Your task to perform on an android device: Check out the new nike air max 2020. Image 0: 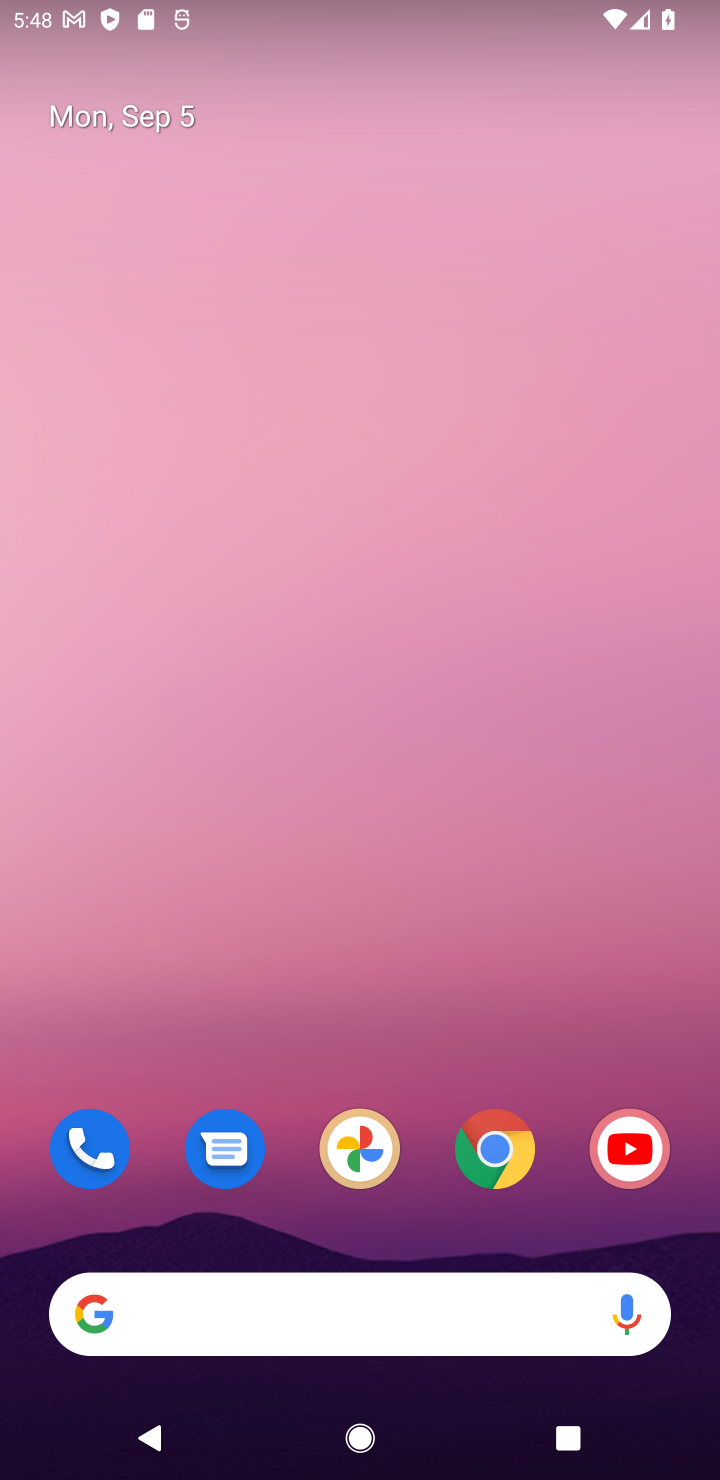
Step 0: click (484, 1153)
Your task to perform on an android device: Check out the new nike air max 2020. Image 1: 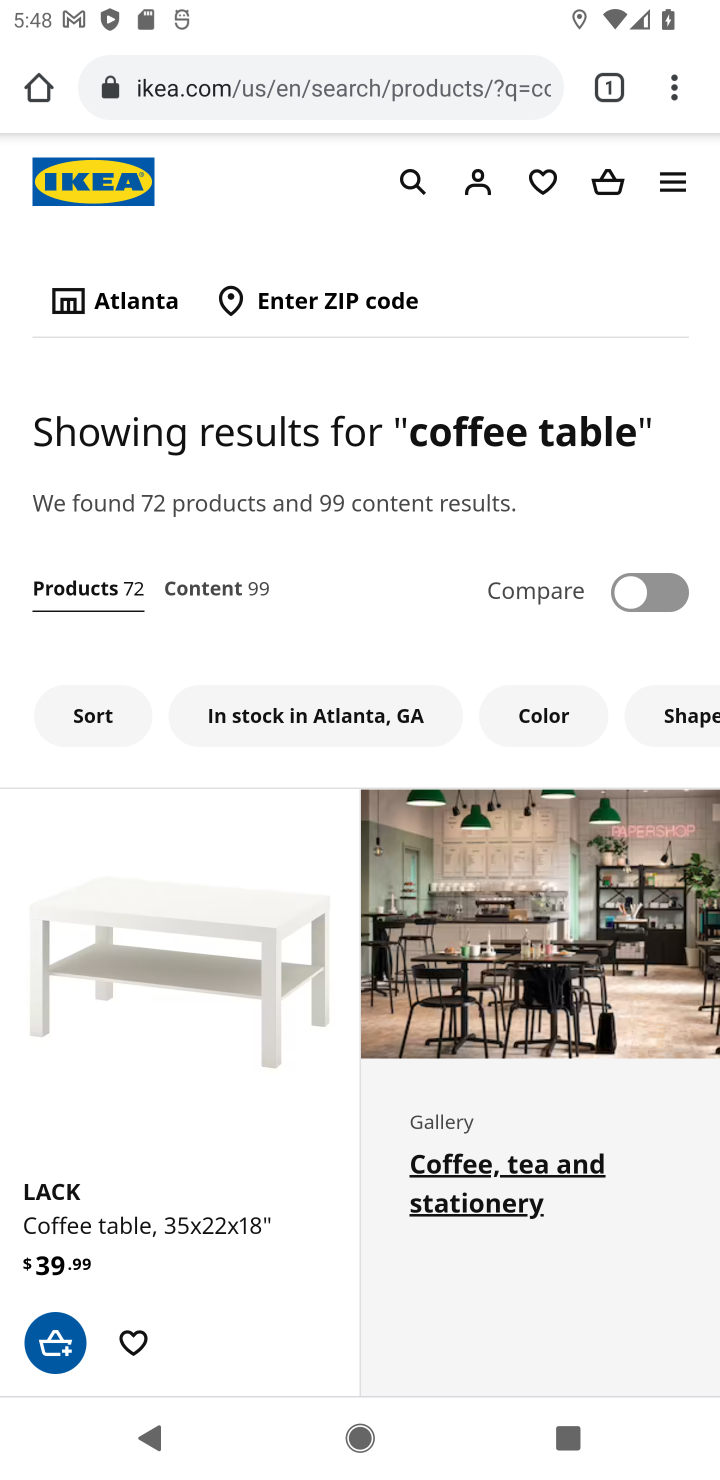
Step 1: click (294, 61)
Your task to perform on an android device: Check out the new nike air max 2020. Image 2: 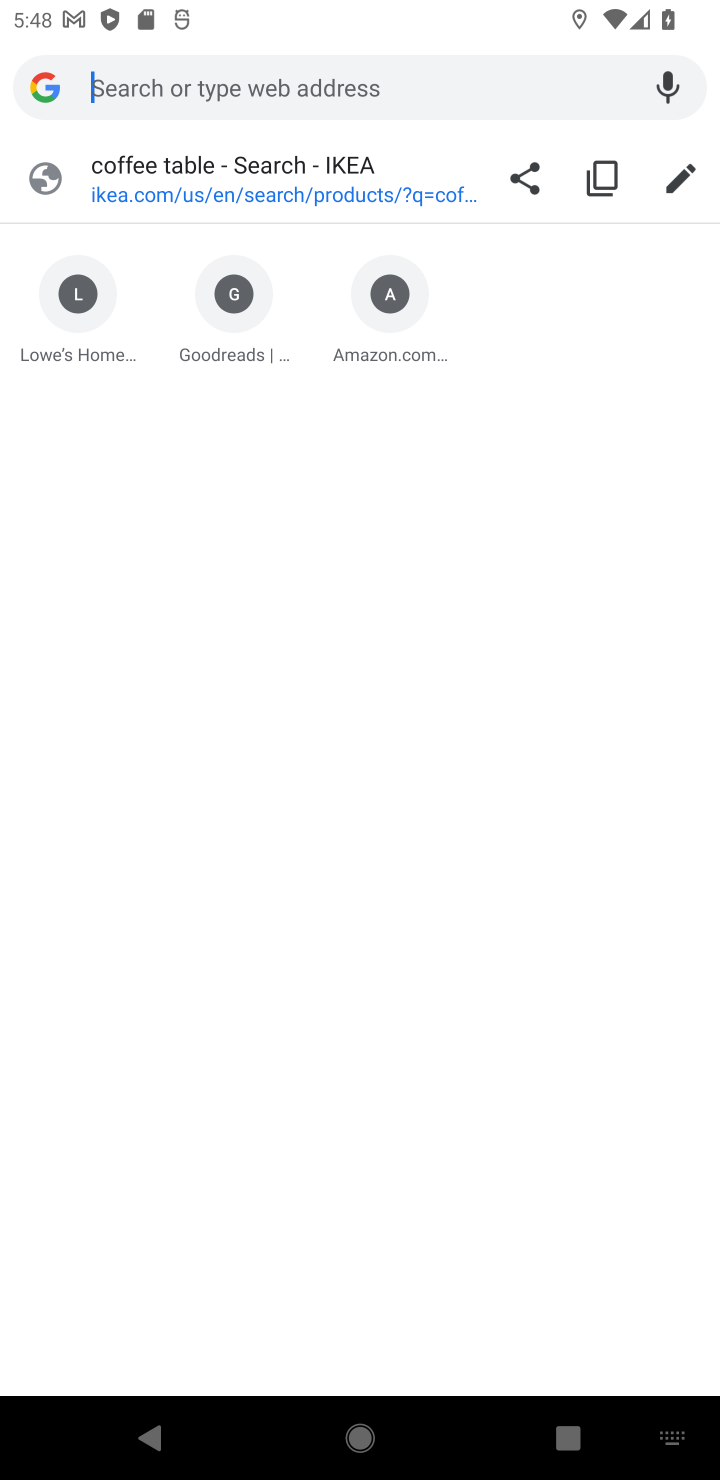
Step 2: type "nike air max 2020"
Your task to perform on an android device: Check out the new nike air max 2020. Image 3: 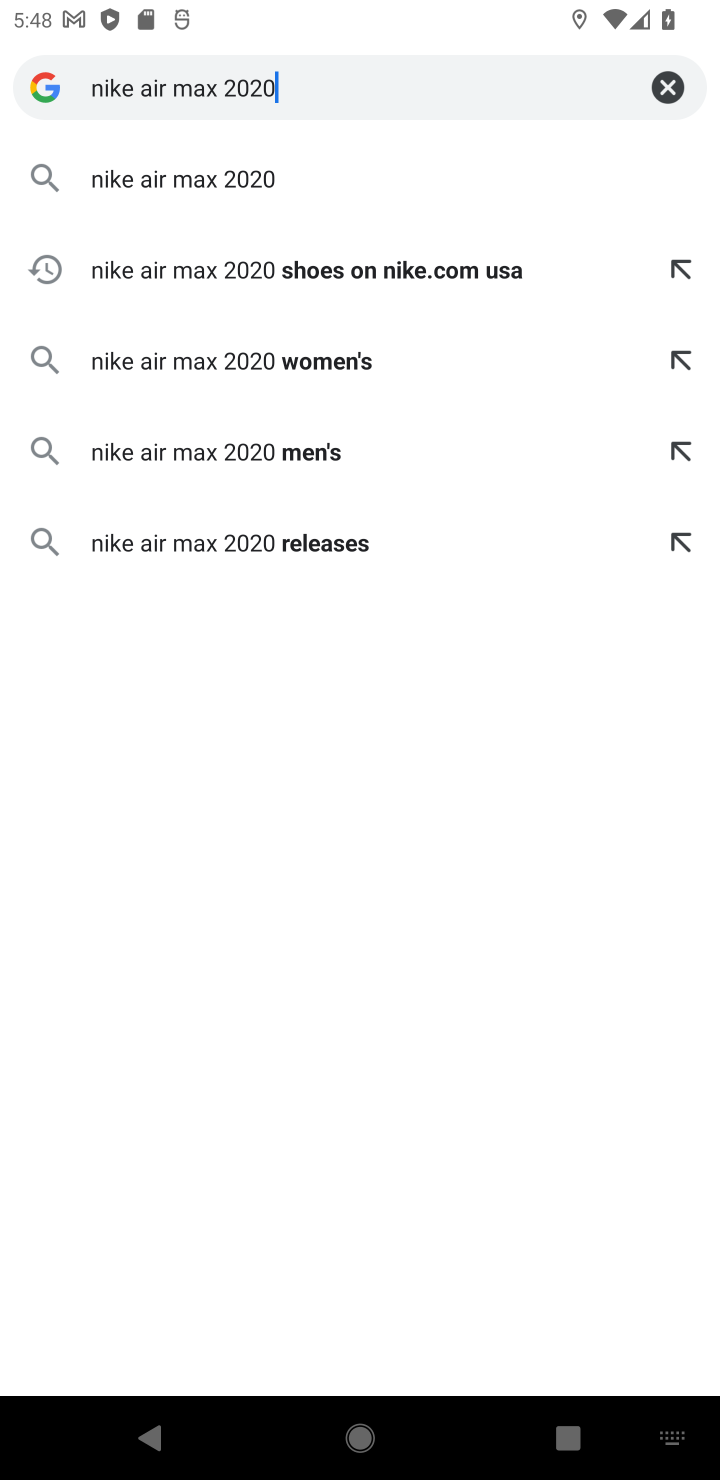
Step 3: click (158, 178)
Your task to perform on an android device: Check out the new nike air max 2020. Image 4: 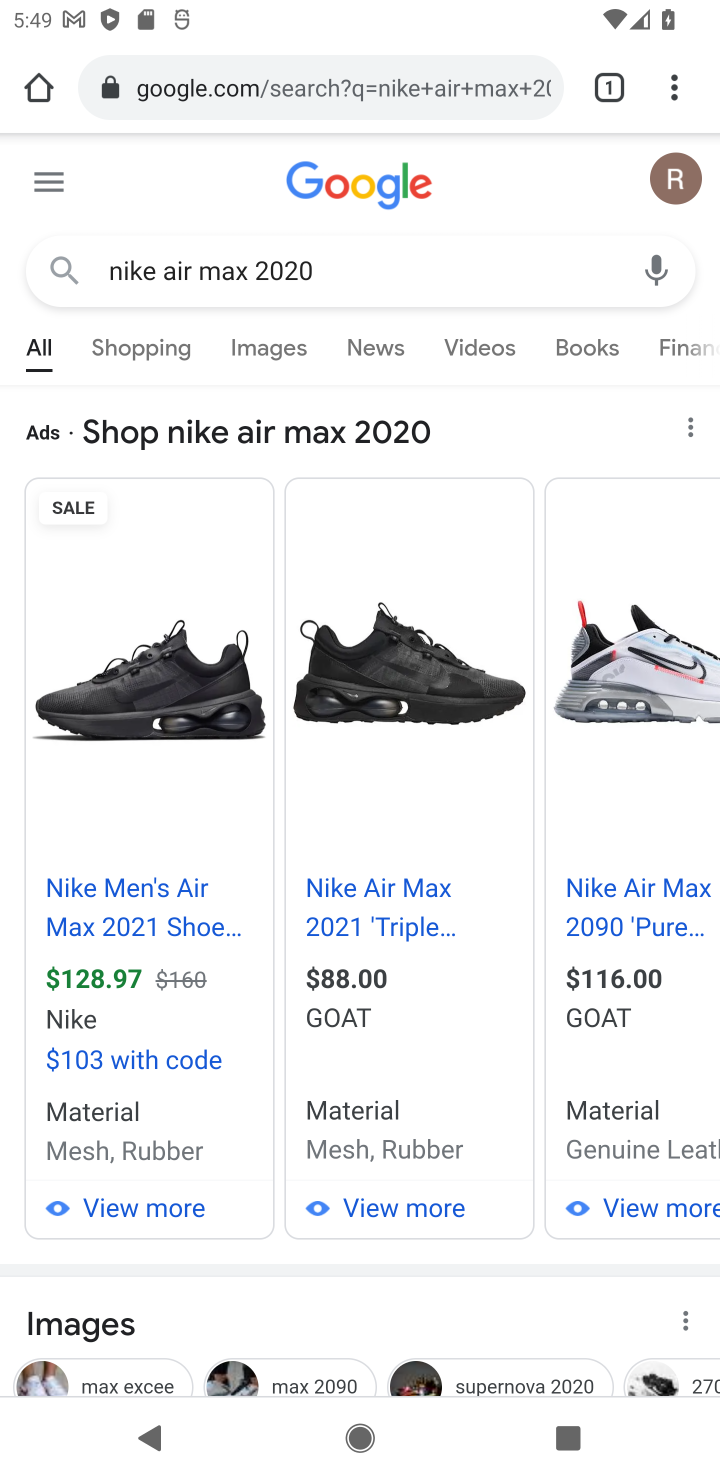
Step 4: task complete